Your task to perform on an android device: find which apps use the phone's location Image 0: 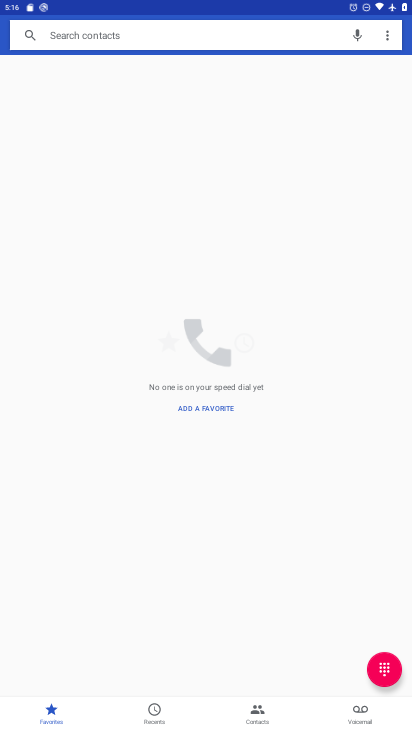
Step 0: press home button
Your task to perform on an android device: find which apps use the phone's location Image 1: 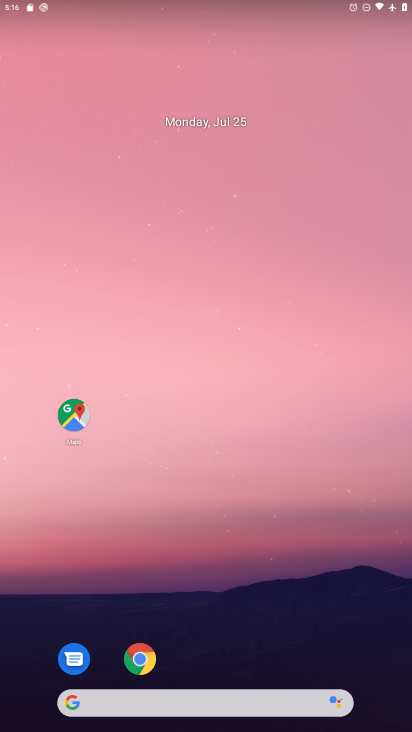
Step 1: drag from (315, 624) to (235, 141)
Your task to perform on an android device: find which apps use the phone's location Image 2: 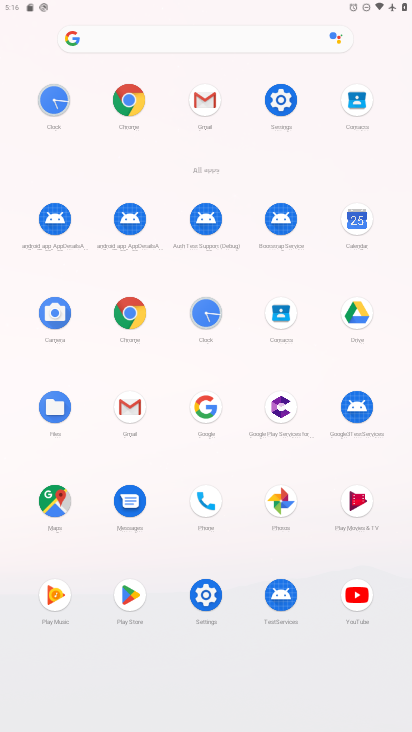
Step 2: click (286, 96)
Your task to perform on an android device: find which apps use the phone's location Image 3: 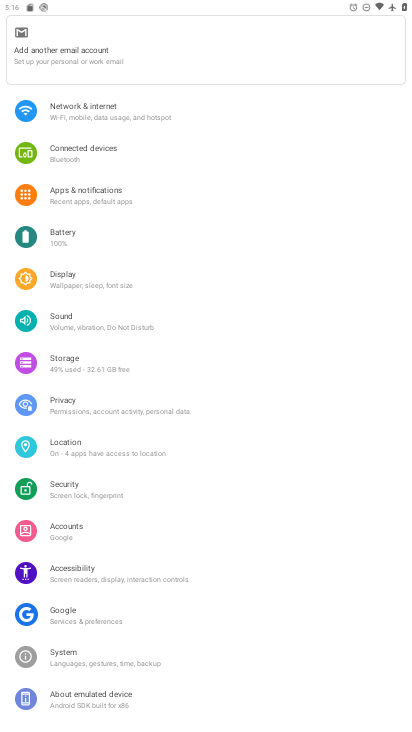
Step 3: click (108, 449)
Your task to perform on an android device: find which apps use the phone's location Image 4: 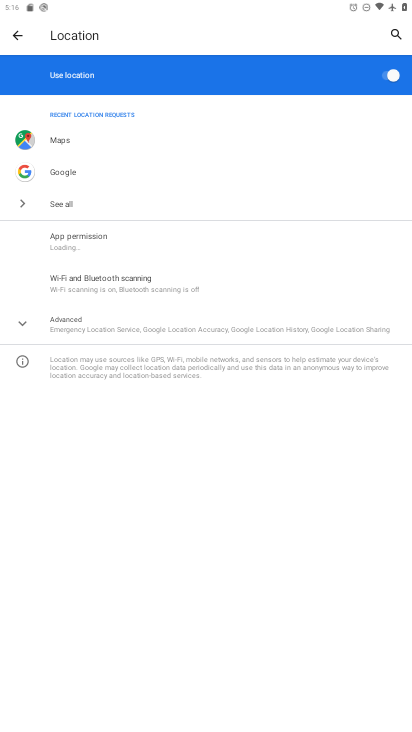
Step 4: click (204, 237)
Your task to perform on an android device: find which apps use the phone's location Image 5: 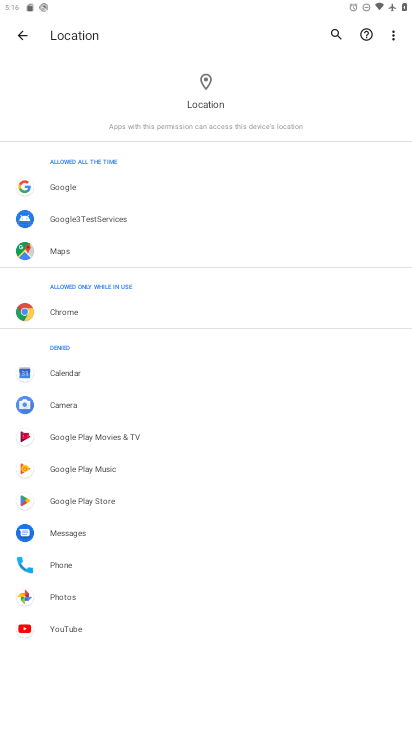
Step 5: task complete